Your task to perform on an android device: Open the map Image 0: 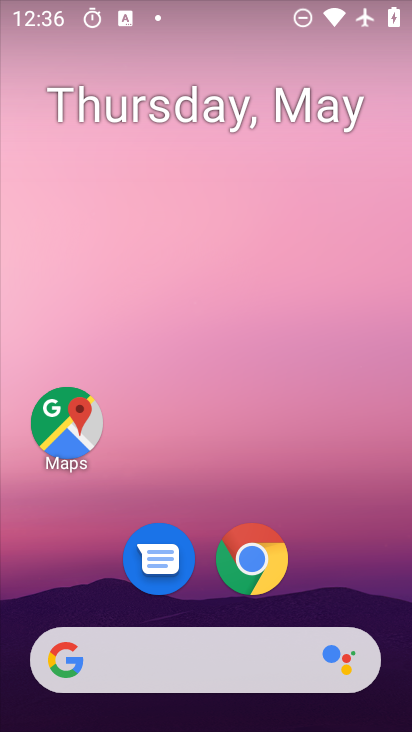
Step 0: drag from (181, 638) to (222, 195)
Your task to perform on an android device: Open the map Image 1: 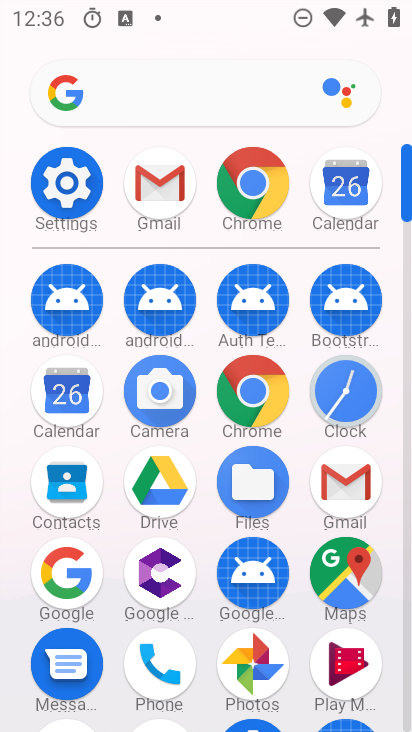
Step 1: click (348, 579)
Your task to perform on an android device: Open the map Image 2: 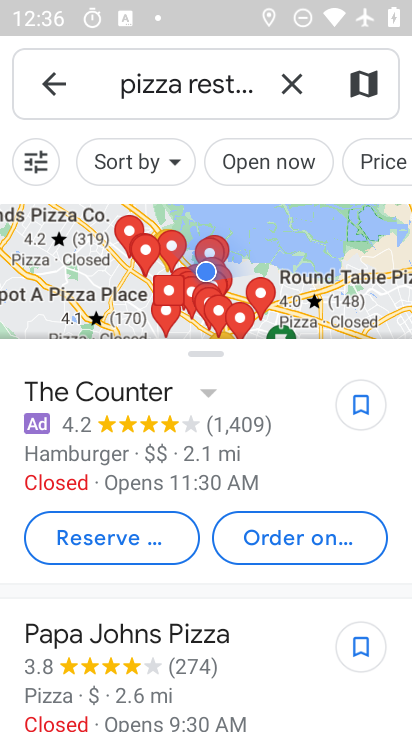
Step 2: task complete